Your task to perform on an android device: clear history in the chrome app Image 0: 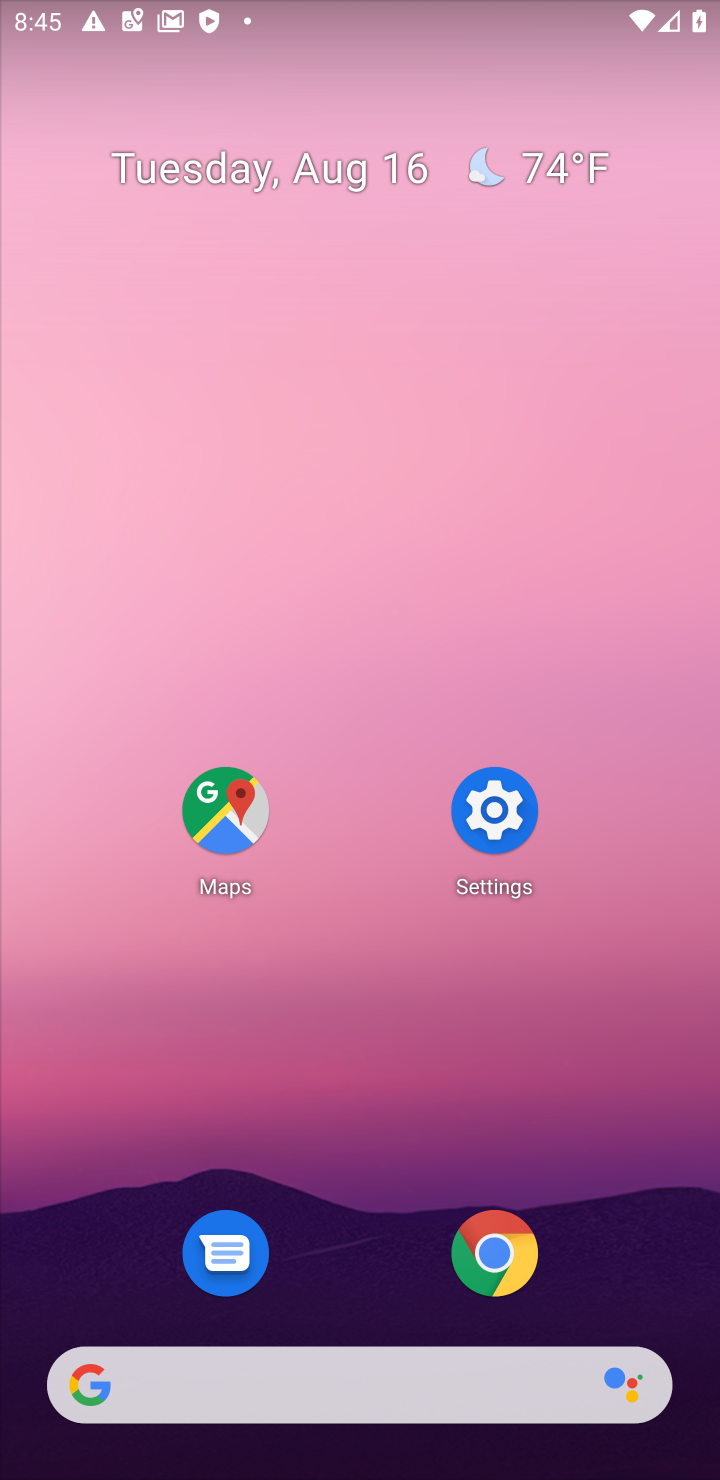
Step 0: click (497, 1262)
Your task to perform on an android device: clear history in the chrome app Image 1: 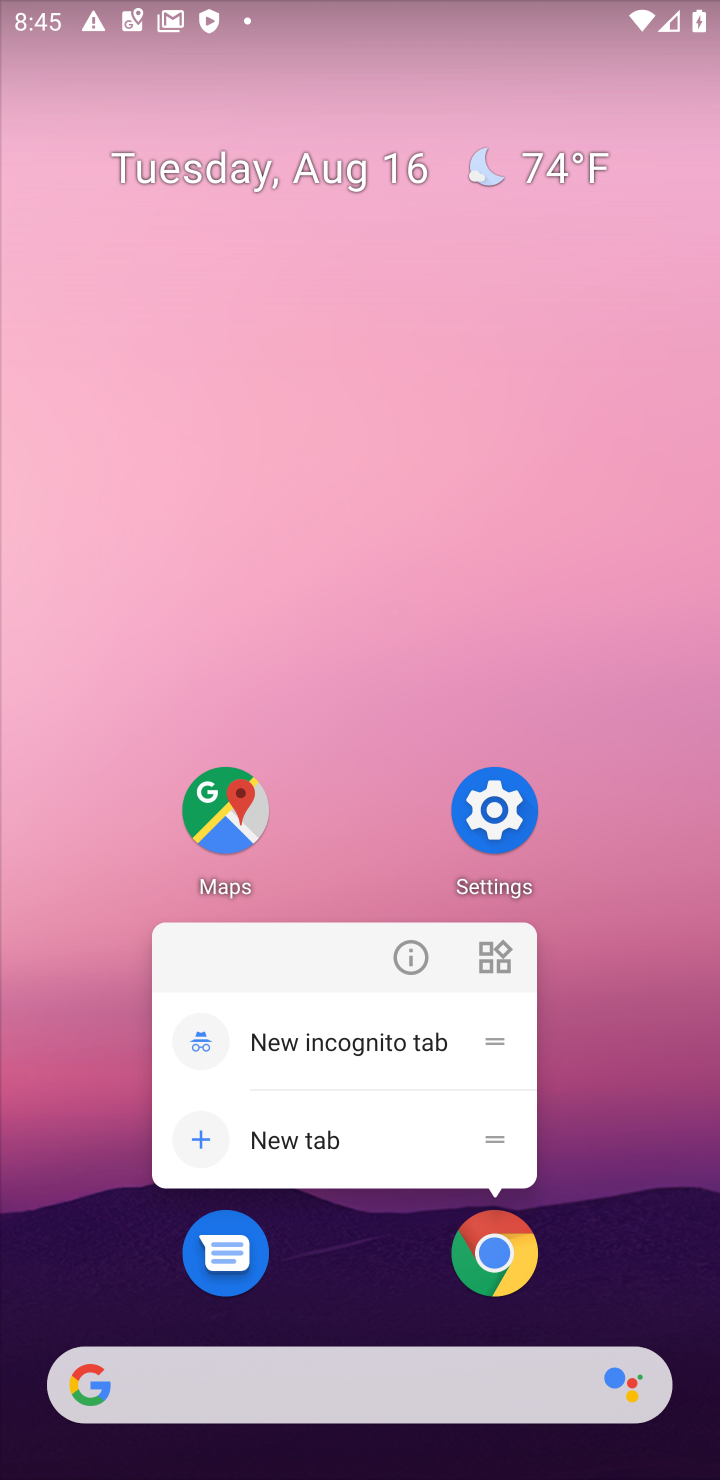
Step 1: click (497, 1266)
Your task to perform on an android device: clear history in the chrome app Image 2: 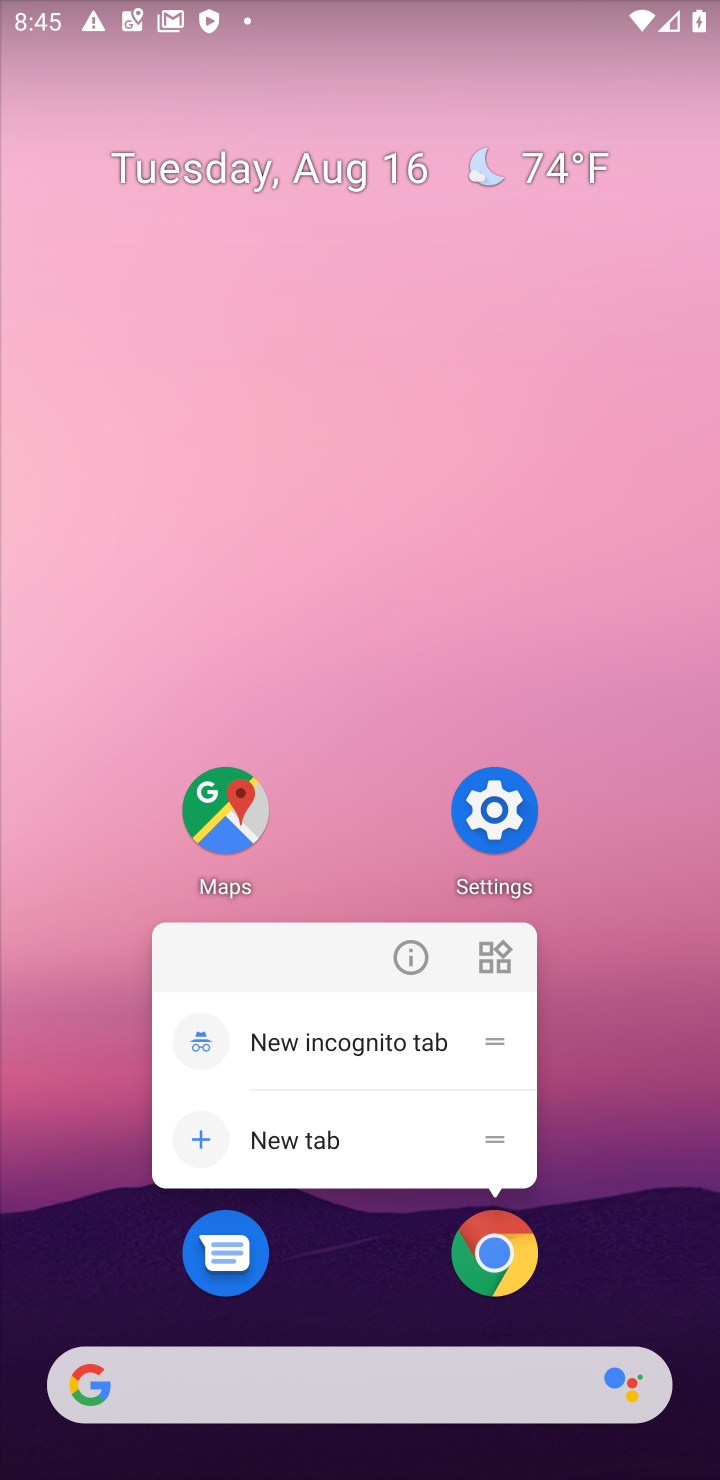
Step 2: click (497, 1262)
Your task to perform on an android device: clear history in the chrome app Image 3: 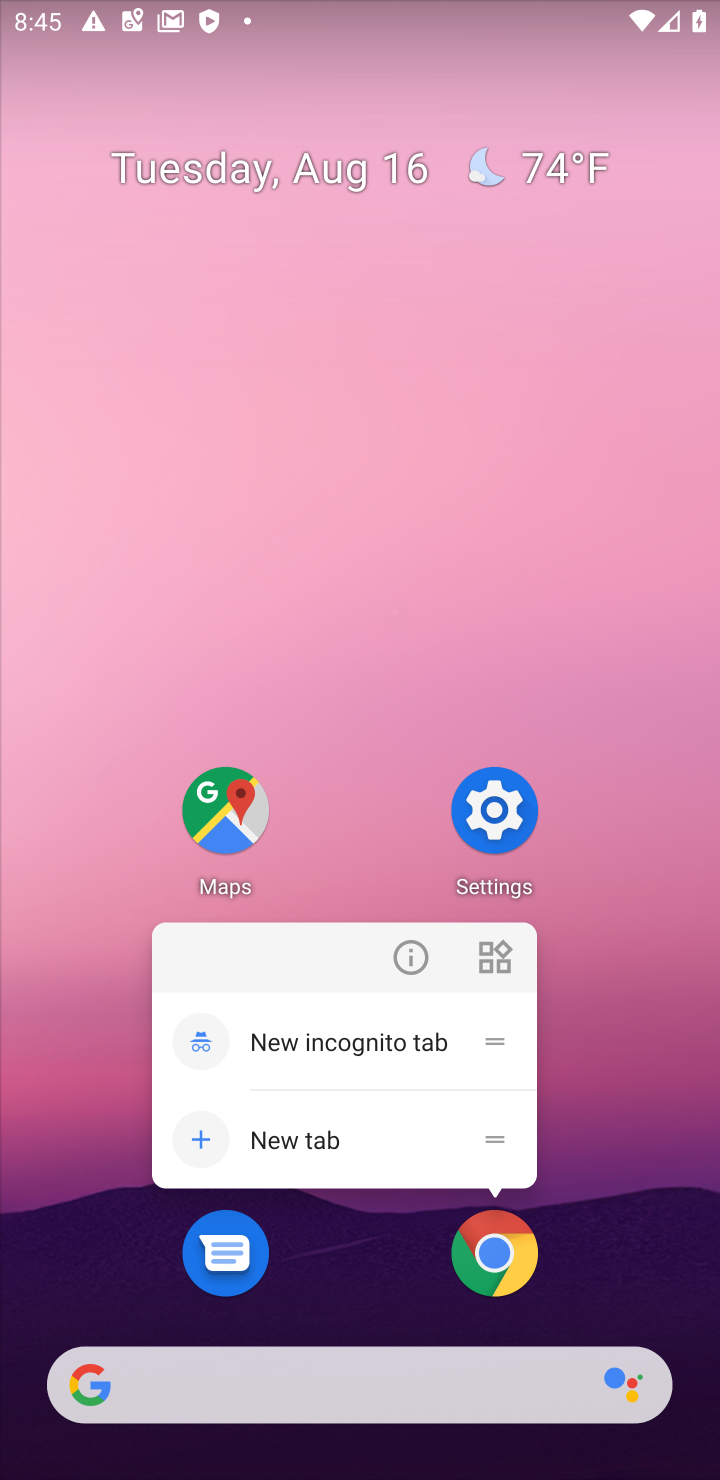
Step 3: click (497, 1266)
Your task to perform on an android device: clear history in the chrome app Image 4: 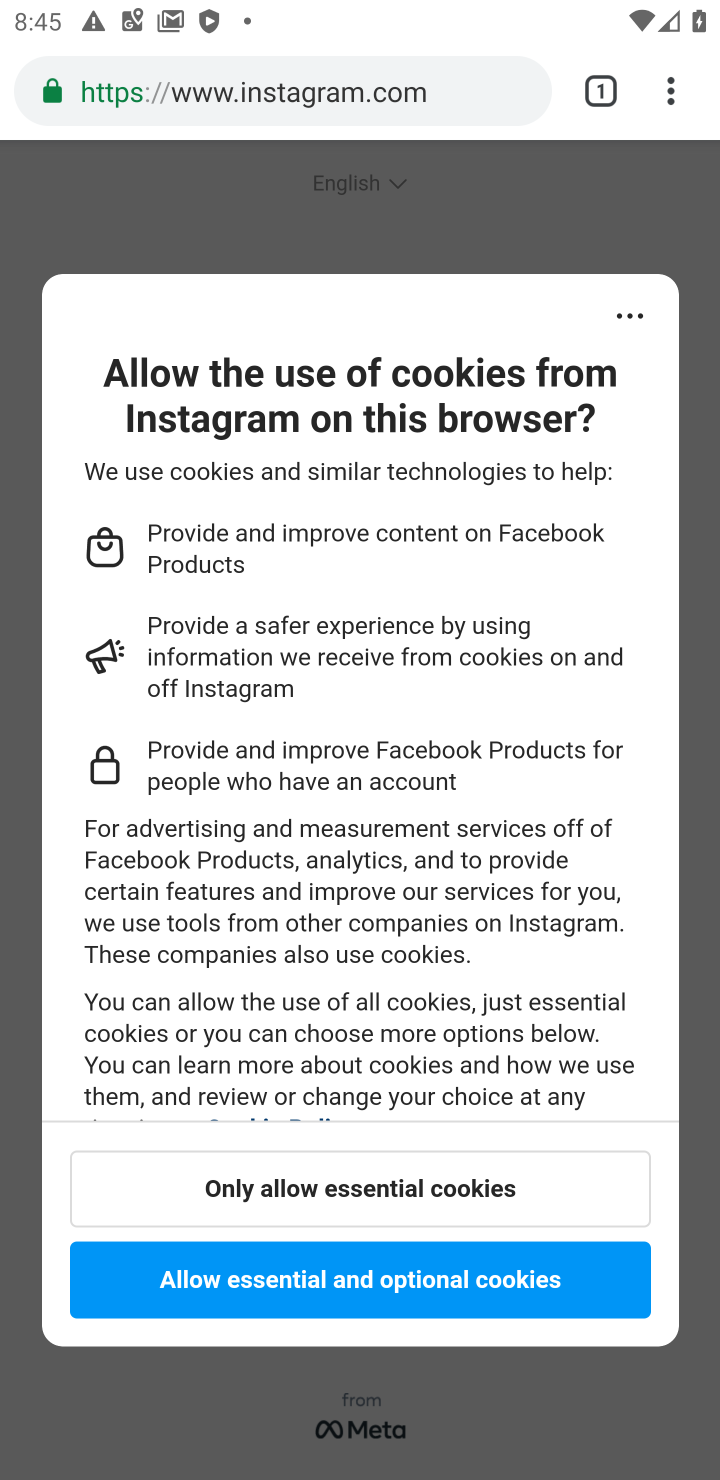
Step 4: drag from (664, 78) to (408, 521)
Your task to perform on an android device: clear history in the chrome app Image 5: 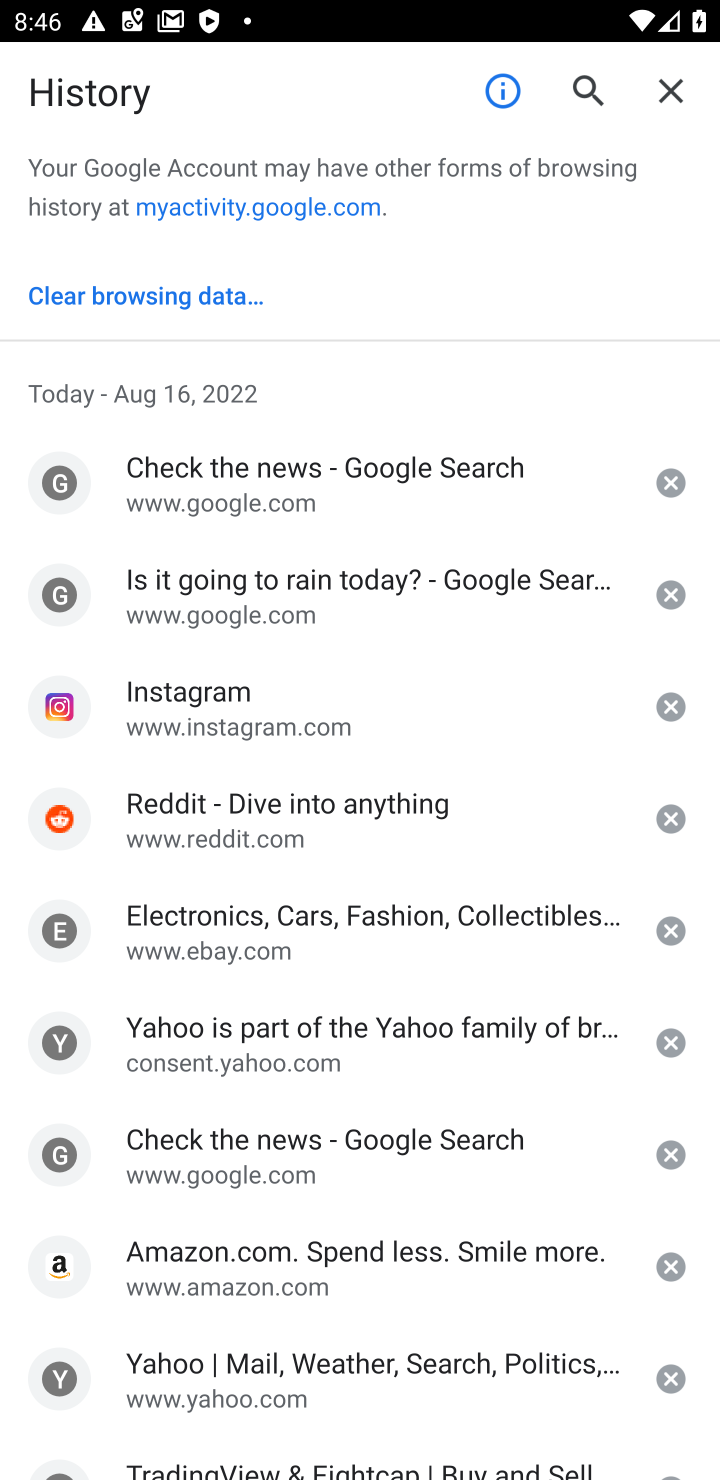
Step 5: click (184, 288)
Your task to perform on an android device: clear history in the chrome app Image 6: 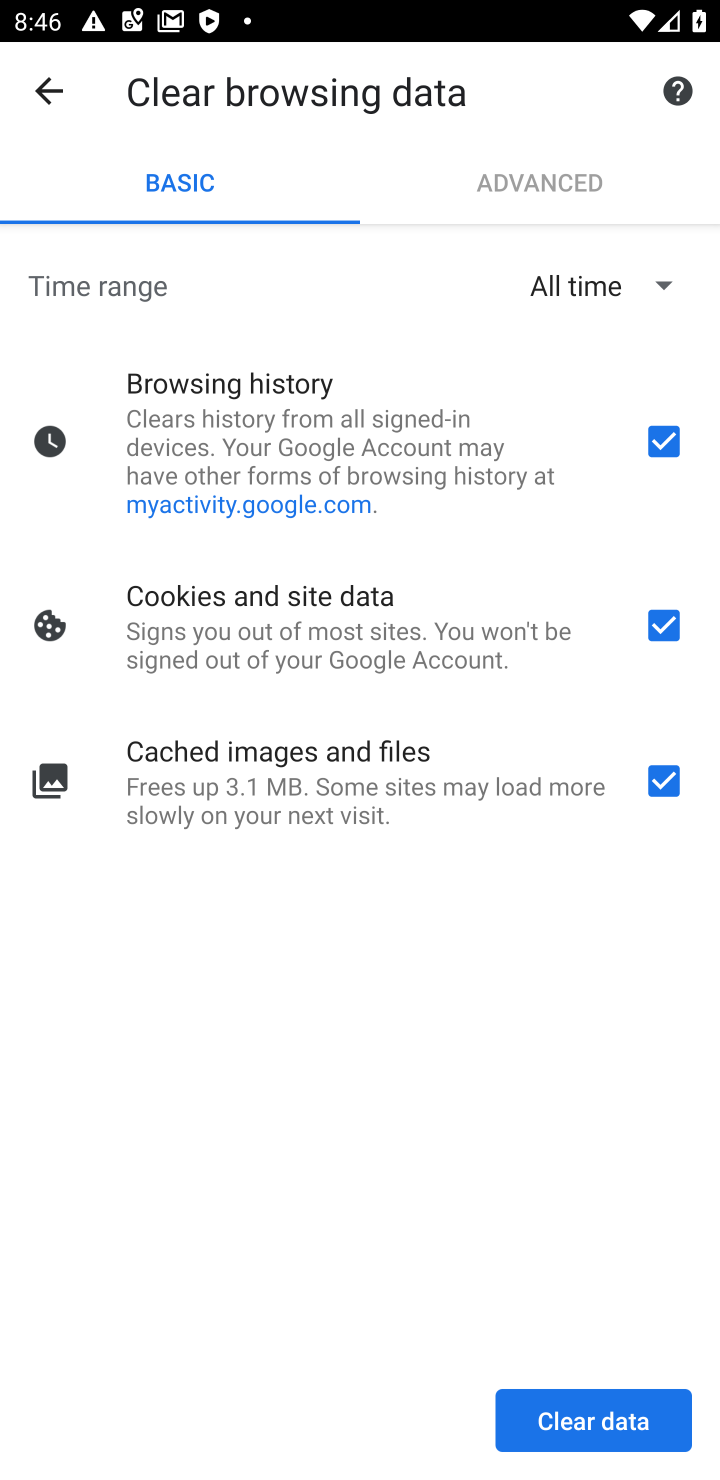
Step 6: click (587, 1415)
Your task to perform on an android device: clear history in the chrome app Image 7: 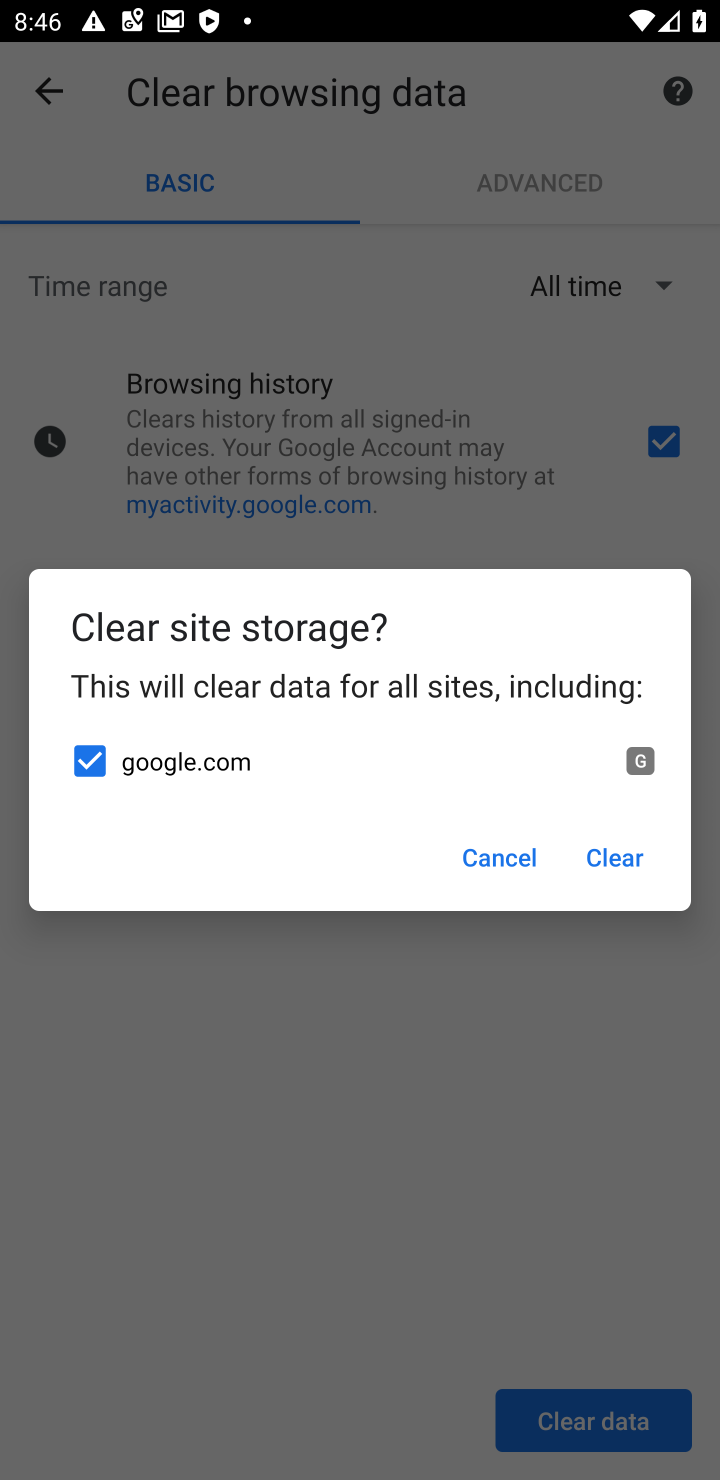
Step 7: click (613, 866)
Your task to perform on an android device: clear history in the chrome app Image 8: 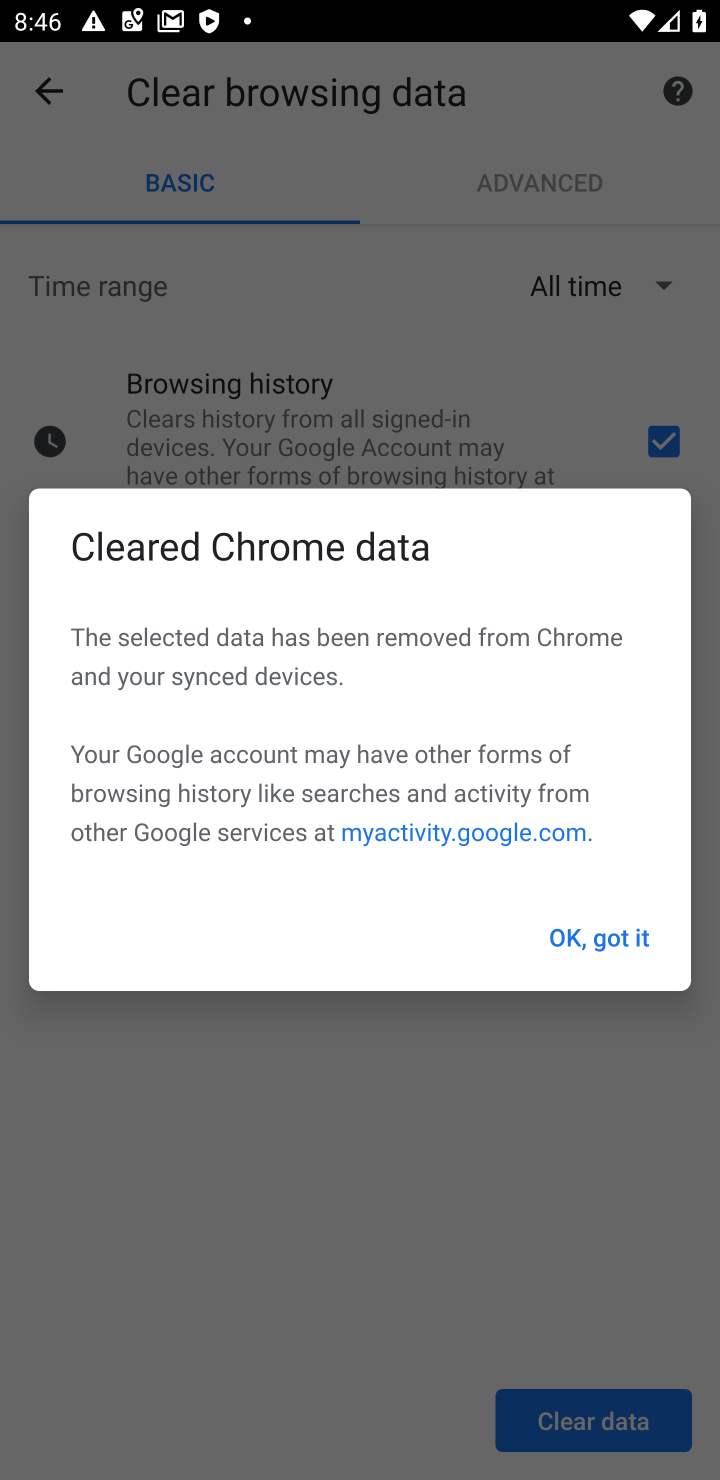
Step 8: click (605, 961)
Your task to perform on an android device: clear history in the chrome app Image 9: 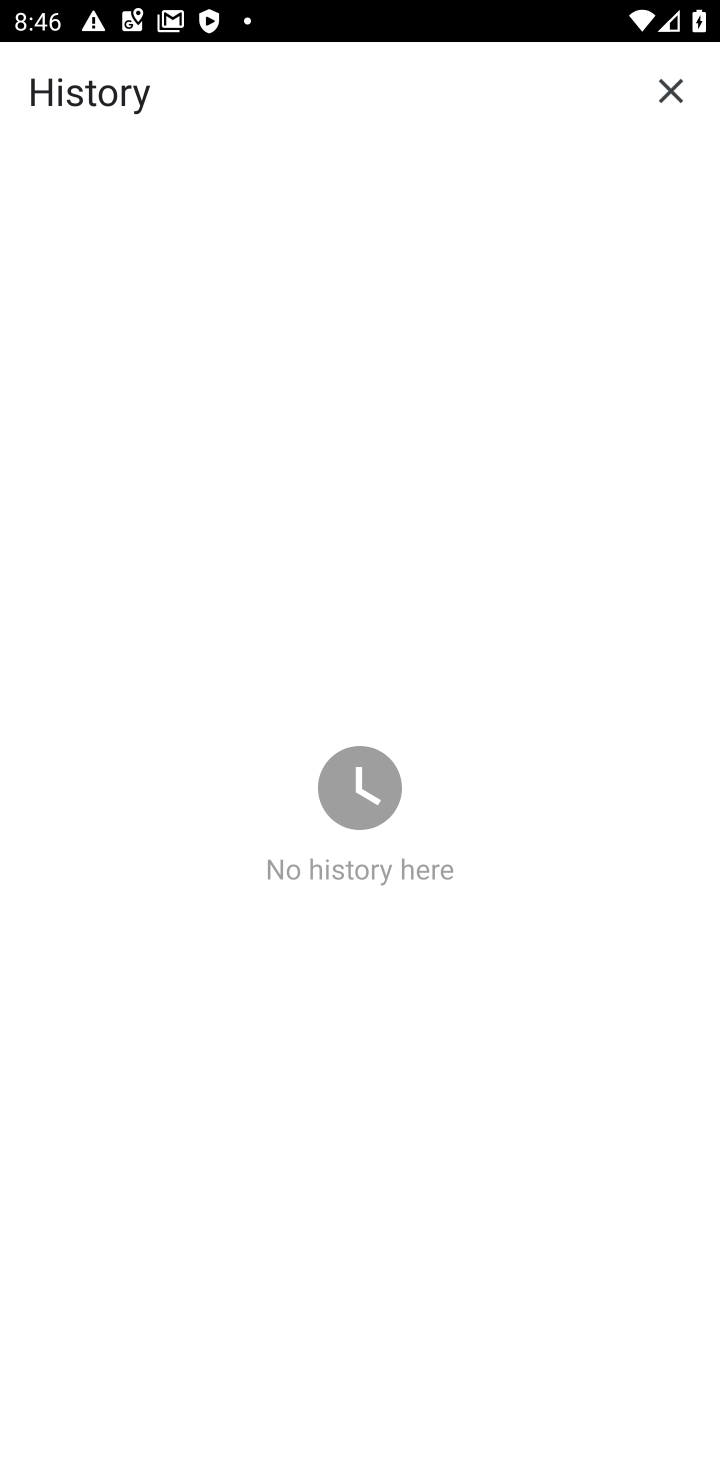
Step 9: task complete